Your task to perform on an android device: What is the recent news? Image 0: 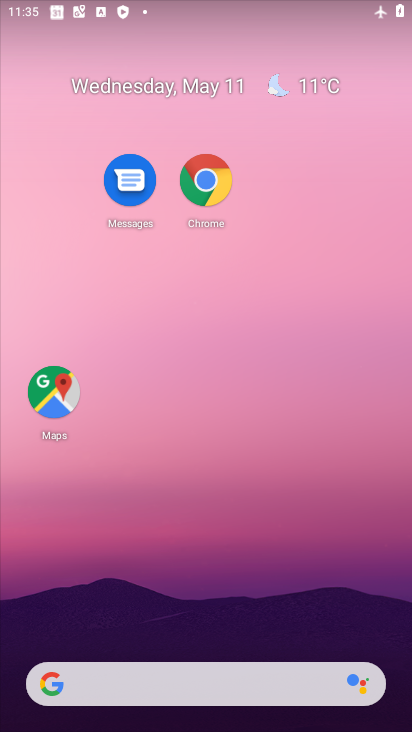
Step 0: drag from (214, 580) to (279, 101)
Your task to perform on an android device: What is the recent news? Image 1: 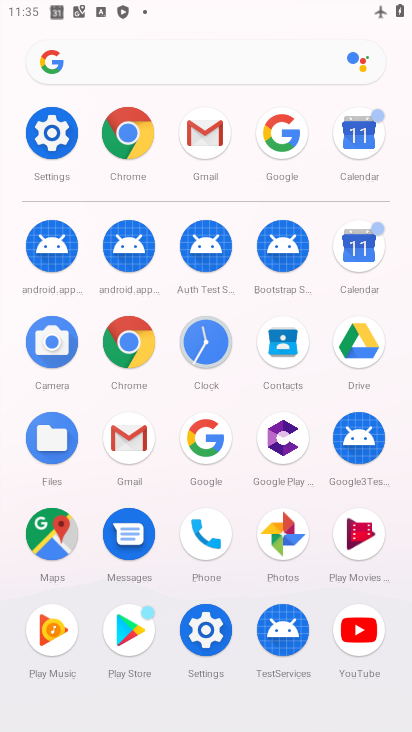
Step 1: click (220, 427)
Your task to perform on an android device: What is the recent news? Image 2: 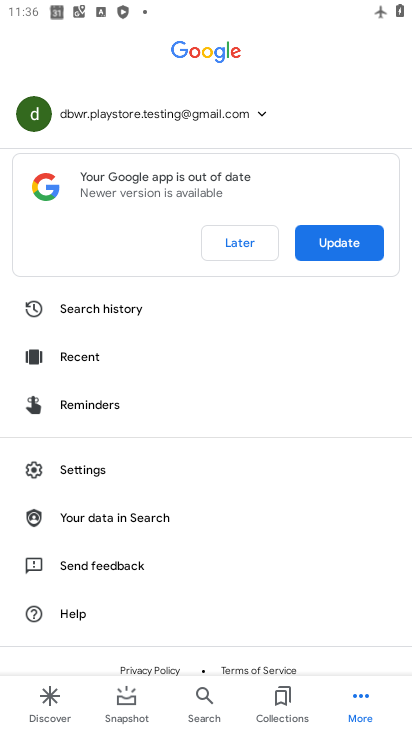
Step 2: click (55, 710)
Your task to perform on an android device: What is the recent news? Image 3: 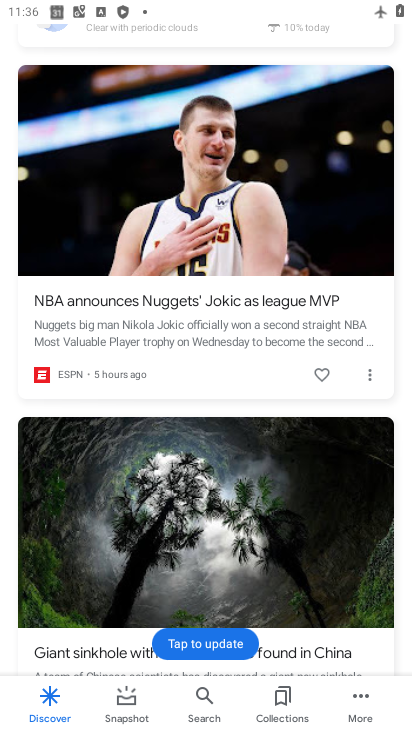
Step 3: task complete